Your task to perform on an android device: Go to Yahoo.com Image 0: 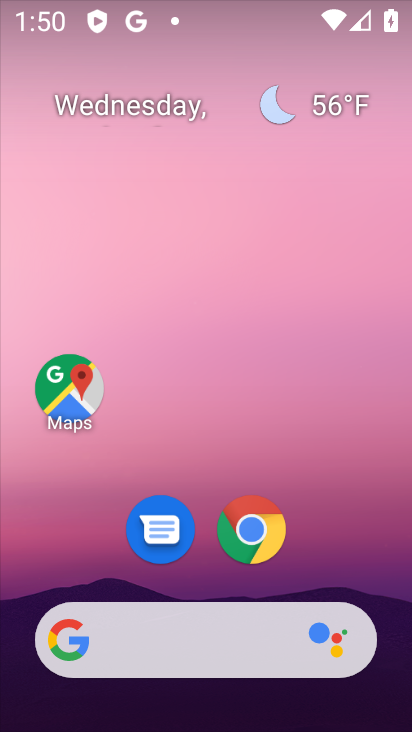
Step 0: click (240, 542)
Your task to perform on an android device: Go to Yahoo.com Image 1: 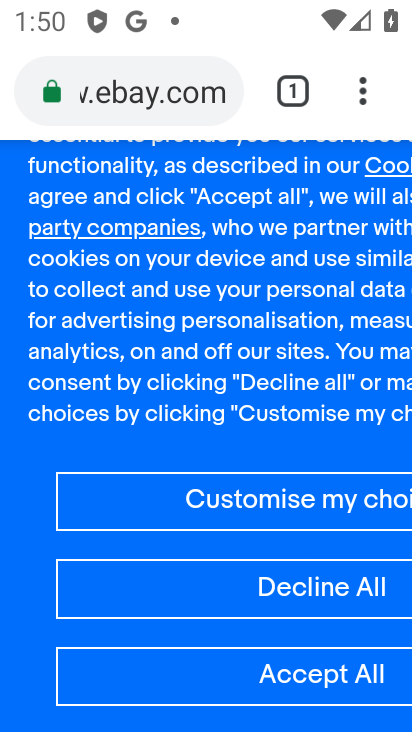
Step 1: click (306, 95)
Your task to perform on an android device: Go to Yahoo.com Image 2: 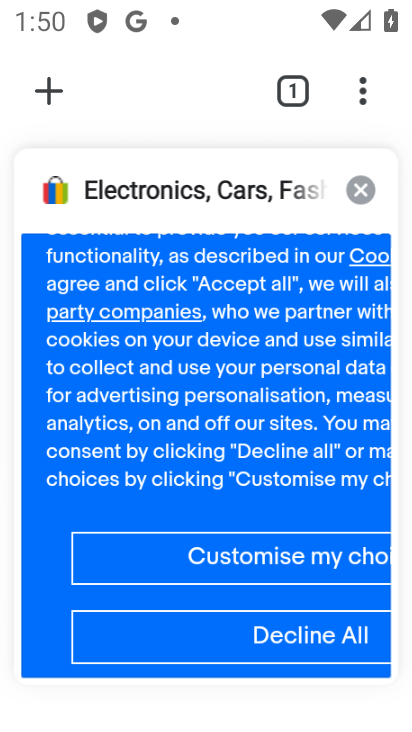
Step 2: click (357, 183)
Your task to perform on an android device: Go to Yahoo.com Image 3: 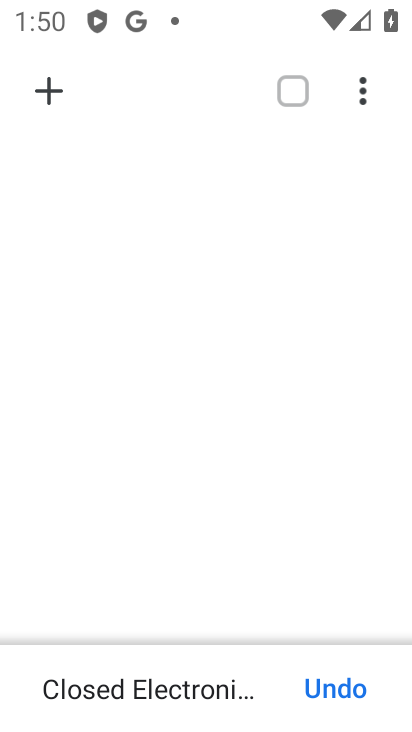
Step 3: click (48, 97)
Your task to perform on an android device: Go to Yahoo.com Image 4: 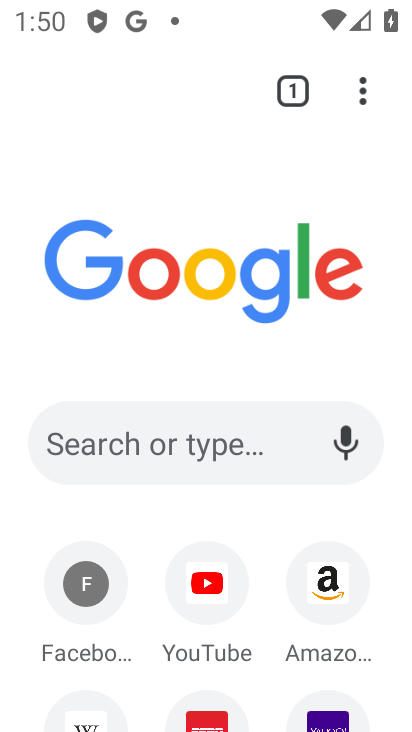
Step 4: click (328, 702)
Your task to perform on an android device: Go to Yahoo.com Image 5: 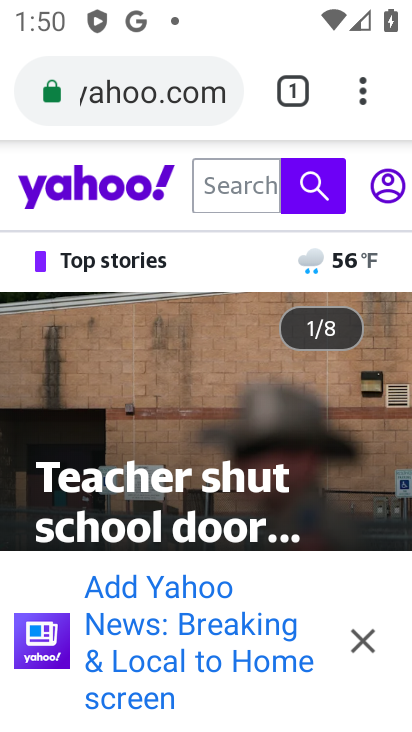
Step 5: task complete